Your task to perform on an android device: install app "WhatsApp Messenger" Image 0: 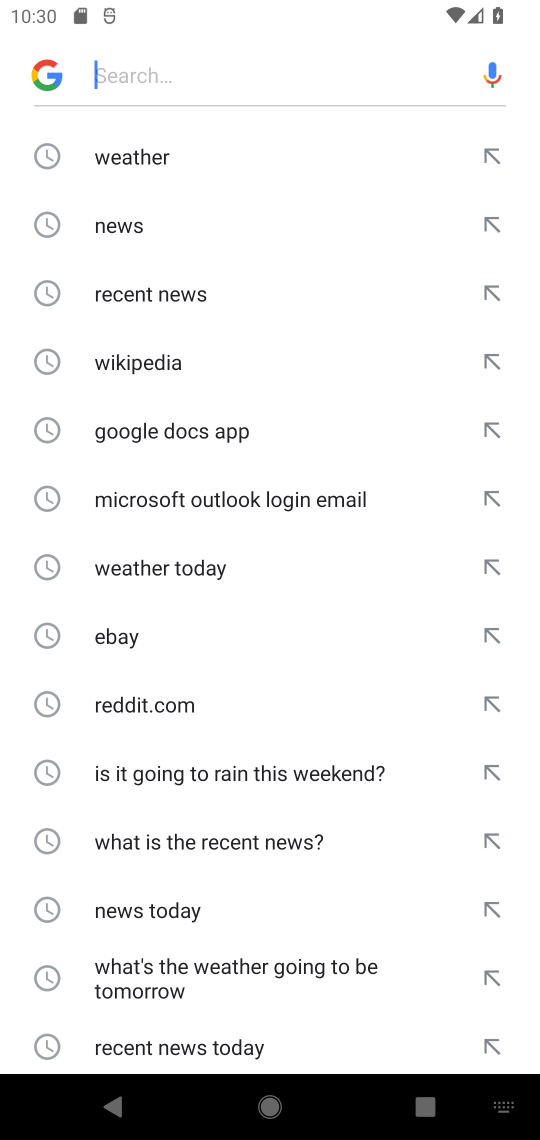
Step 0: press home button
Your task to perform on an android device: install app "WhatsApp Messenger" Image 1: 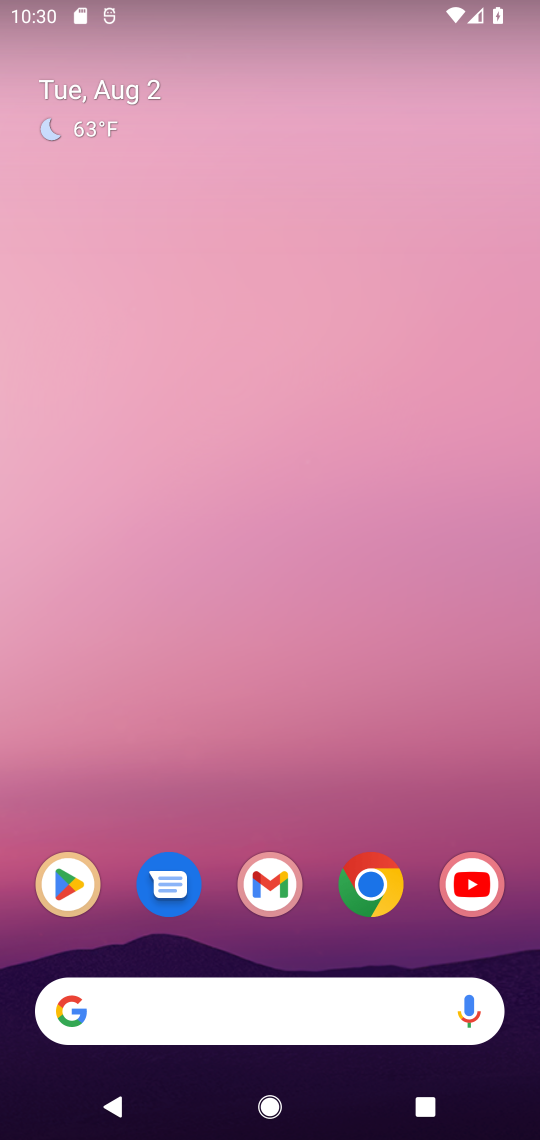
Step 1: click (59, 886)
Your task to perform on an android device: install app "WhatsApp Messenger" Image 2: 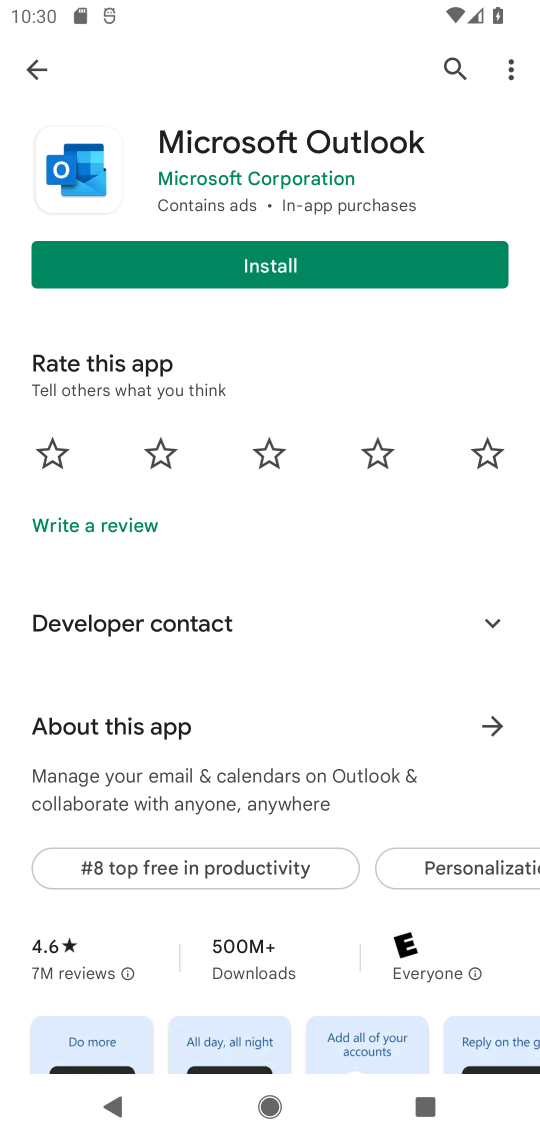
Step 2: click (19, 63)
Your task to perform on an android device: install app "WhatsApp Messenger" Image 3: 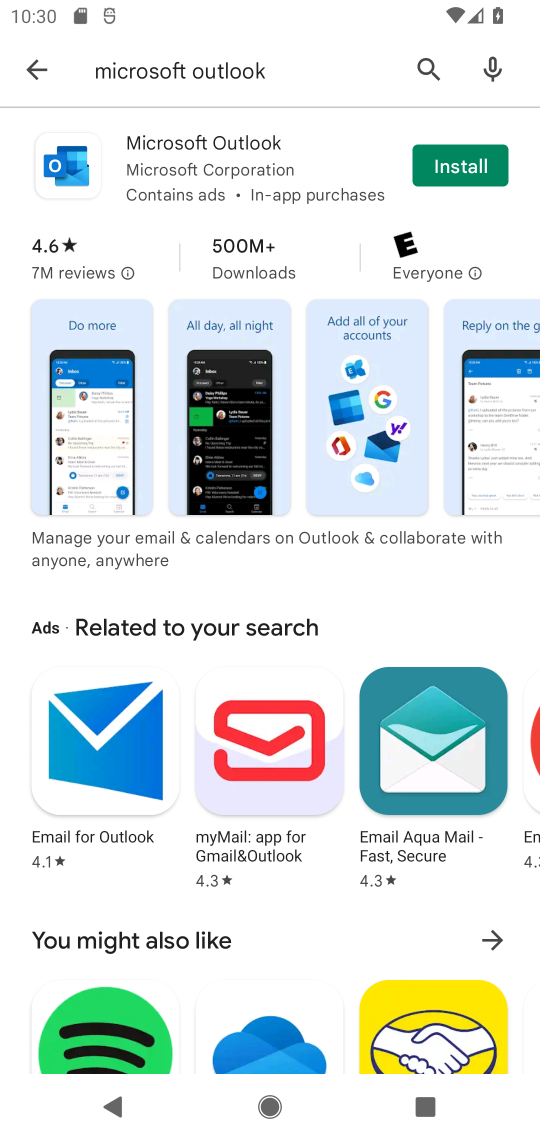
Step 3: click (191, 68)
Your task to perform on an android device: install app "WhatsApp Messenger" Image 4: 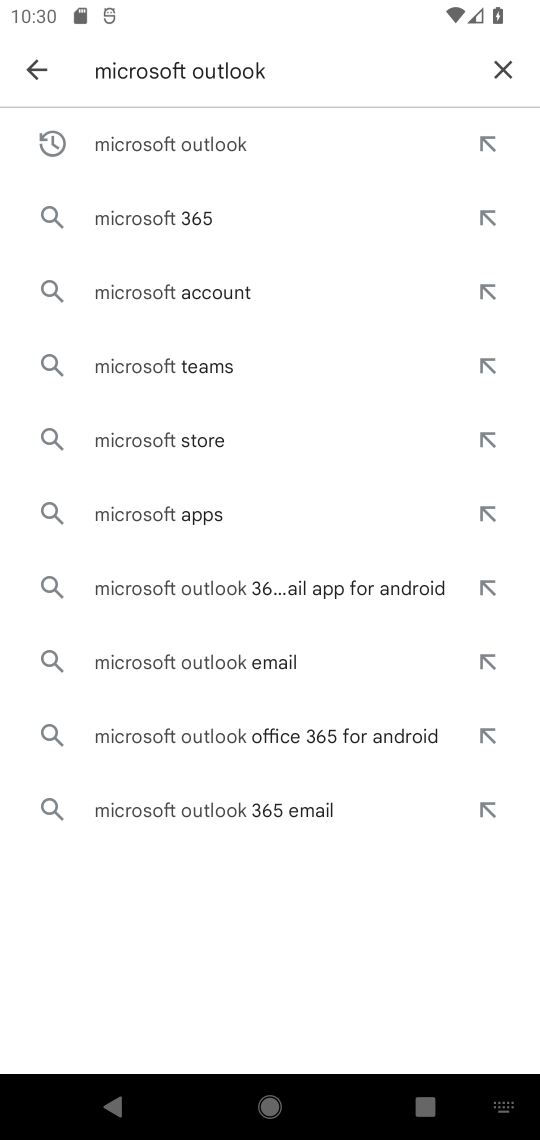
Step 4: click (493, 51)
Your task to perform on an android device: install app "WhatsApp Messenger" Image 5: 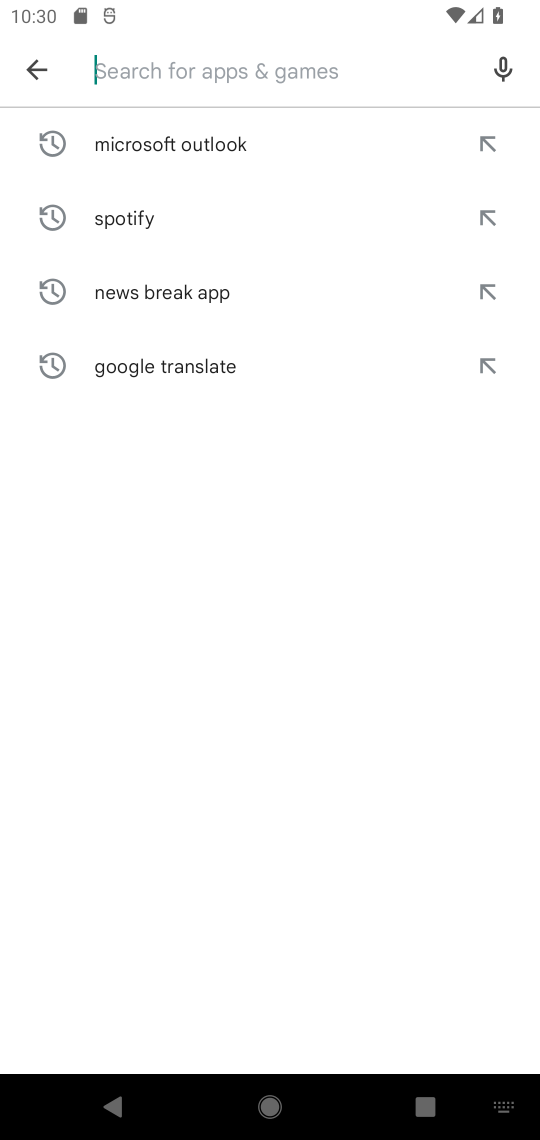
Step 5: type "whatsapp messenger"
Your task to perform on an android device: install app "WhatsApp Messenger" Image 6: 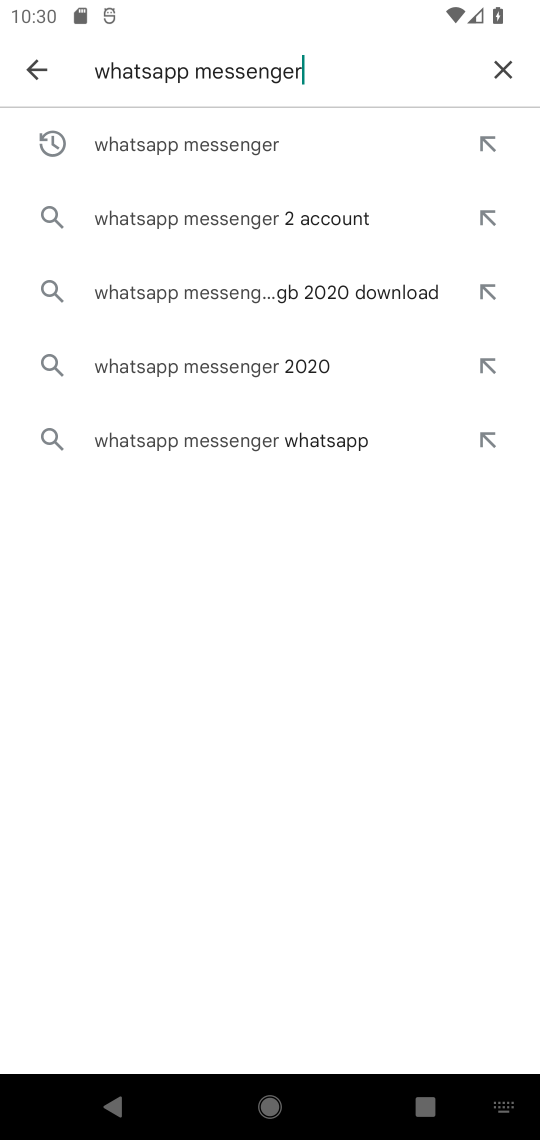
Step 6: click (168, 149)
Your task to perform on an android device: install app "WhatsApp Messenger" Image 7: 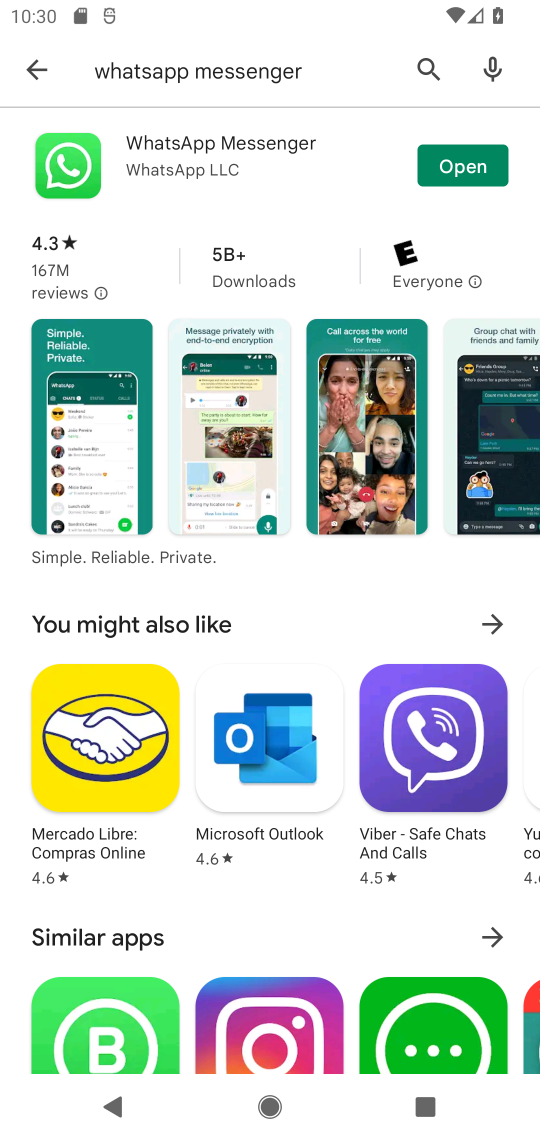
Step 7: click (62, 168)
Your task to perform on an android device: install app "WhatsApp Messenger" Image 8: 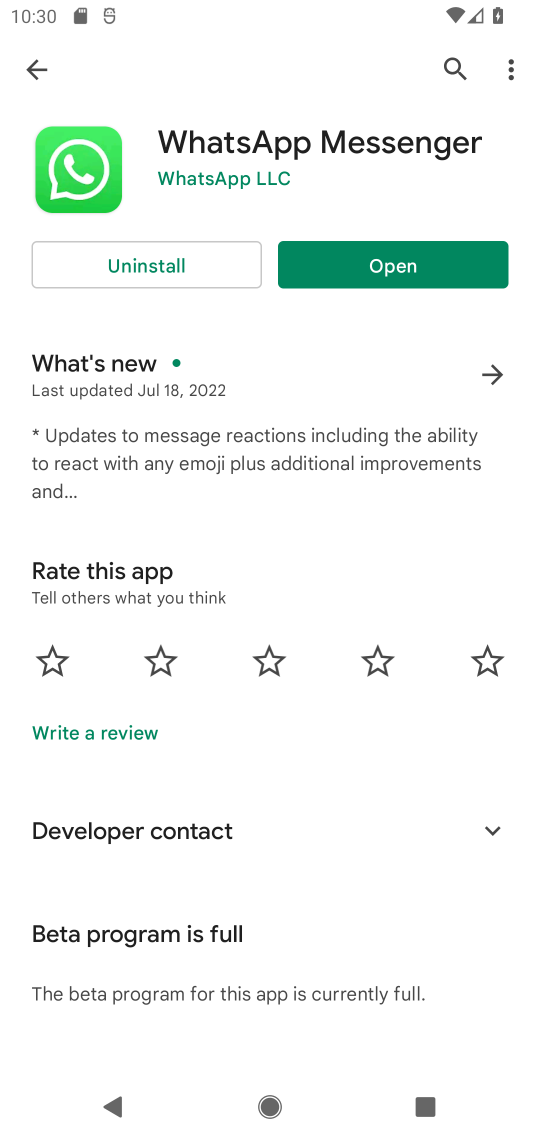
Step 8: task complete